Your task to perform on an android device: Open Google Image 0: 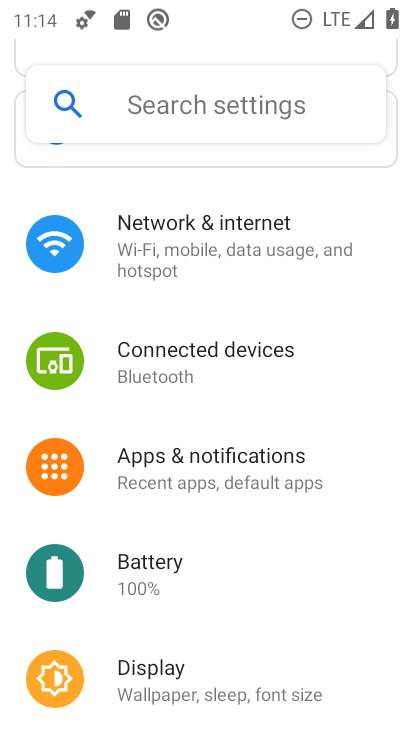
Step 0: press home button
Your task to perform on an android device: Open Google Image 1: 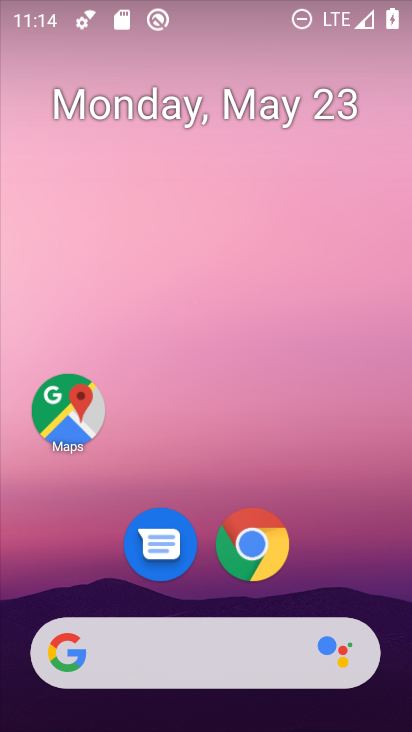
Step 1: click (255, 545)
Your task to perform on an android device: Open Google Image 2: 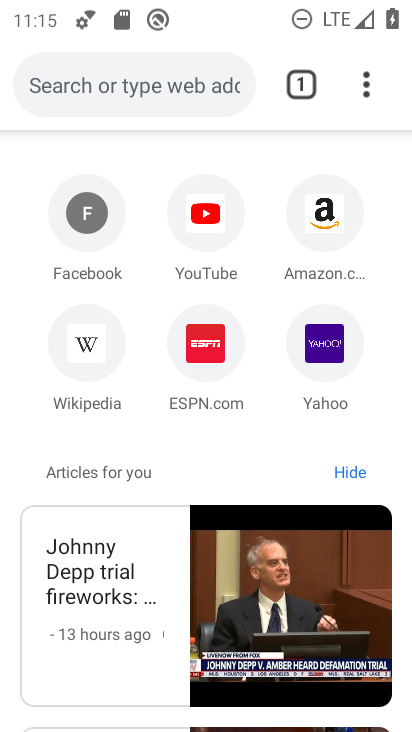
Step 2: task complete